Your task to perform on an android device: set the timer Image 0: 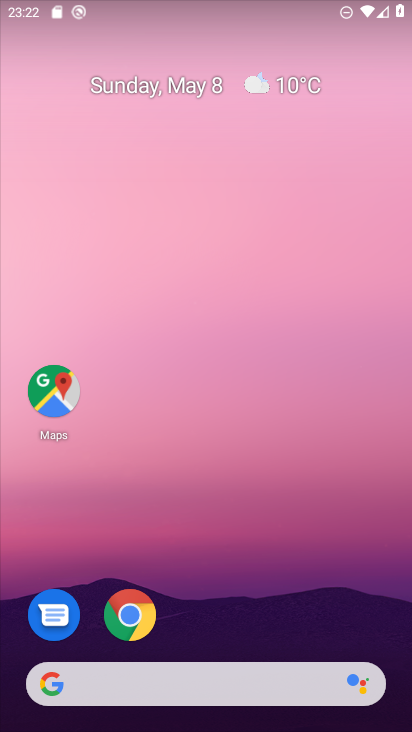
Step 0: drag from (268, 594) to (188, 35)
Your task to perform on an android device: set the timer Image 1: 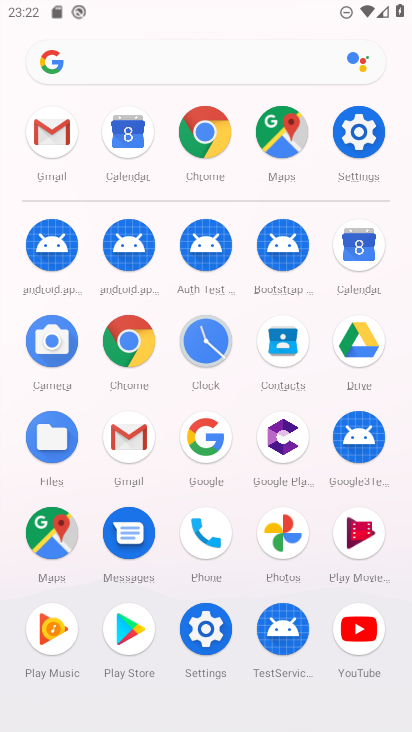
Step 1: click (194, 337)
Your task to perform on an android device: set the timer Image 2: 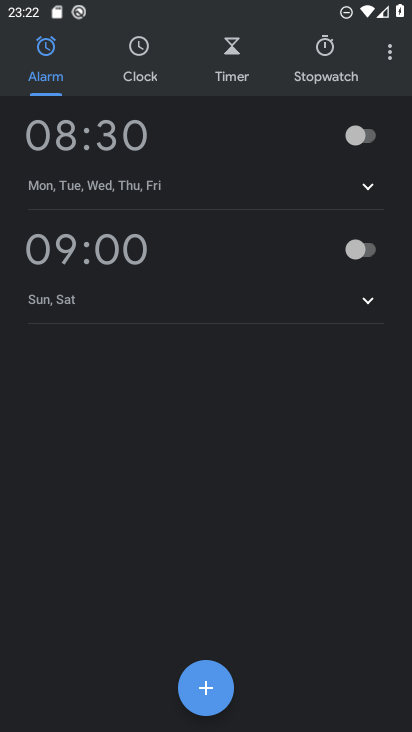
Step 2: click (239, 59)
Your task to perform on an android device: set the timer Image 3: 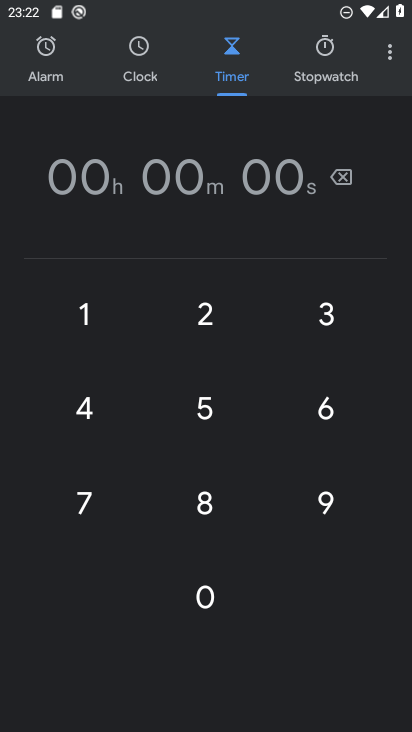
Step 3: click (200, 398)
Your task to perform on an android device: set the timer Image 4: 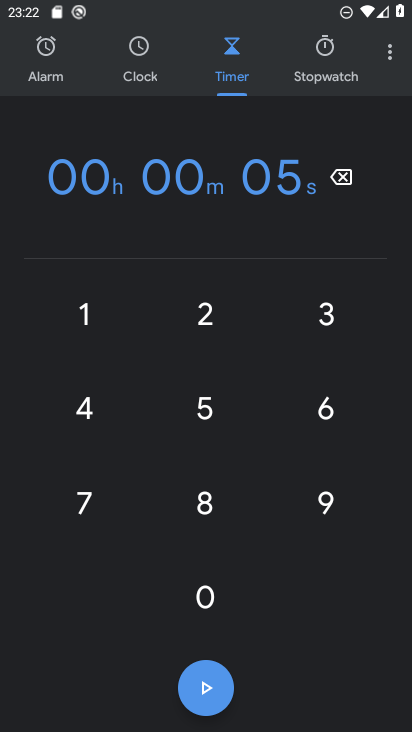
Step 4: task complete